Your task to perform on an android device: Show me productivity apps on the Play Store Image 0: 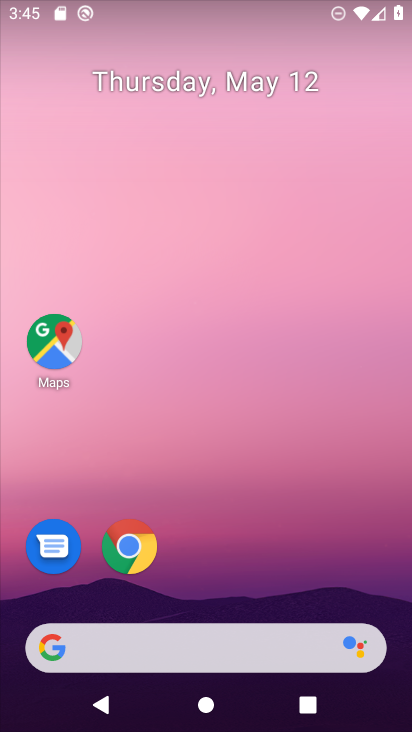
Step 0: drag from (263, 581) to (308, 266)
Your task to perform on an android device: Show me productivity apps on the Play Store Image 1: 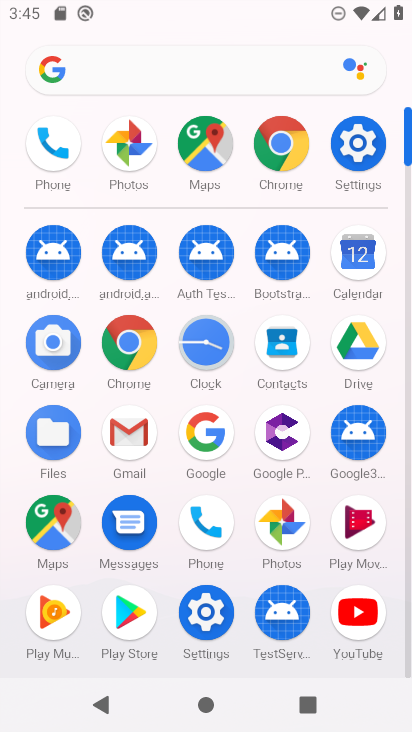
Step 1: drag from (163, 551) to (219, 338)
Your task to perform on an android device: Show me productivity apps on the Play Store Image 2: 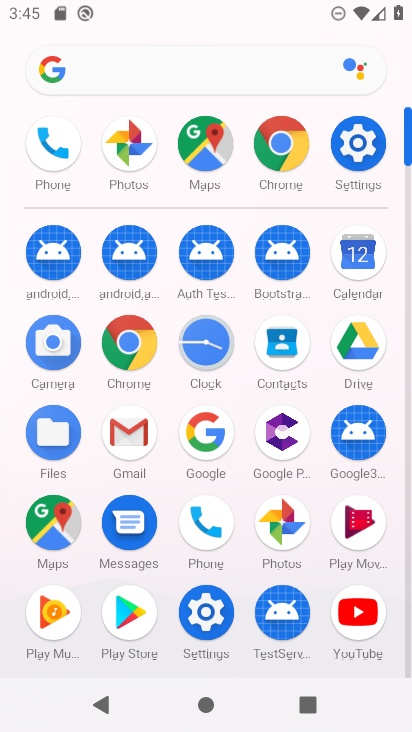
Step 2: click (111, 598)
Your task to perform on an android device: Show me productivity apps on the Play Store Image 3: 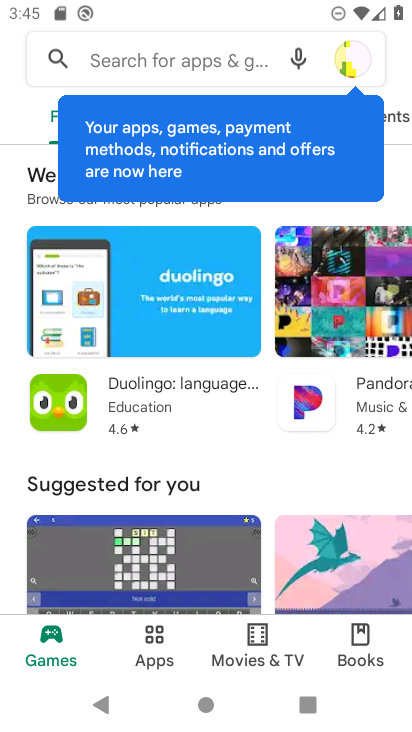
Step 3: click (153, 644)
Your task to perform on an android device: Show me productivity apps on the Play Store Image 4: 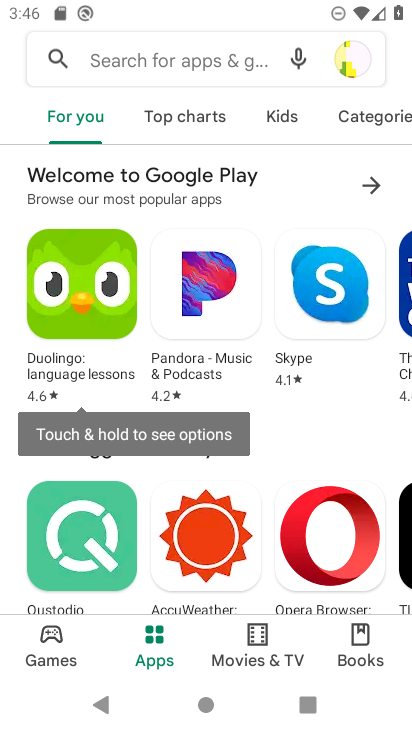
Step 4: task complete